Your task to perform on an android device: What's the weather going to be tomorrow? Image 0: 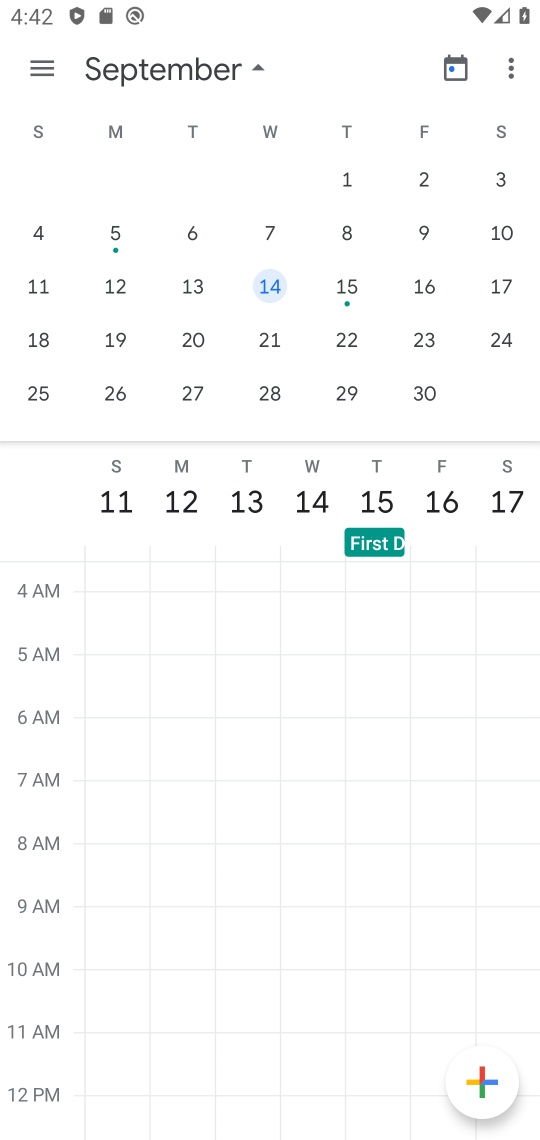
Step 0: press home button
Your task to perform on an android device: What's the weather going to be tomorrow? Image 1: 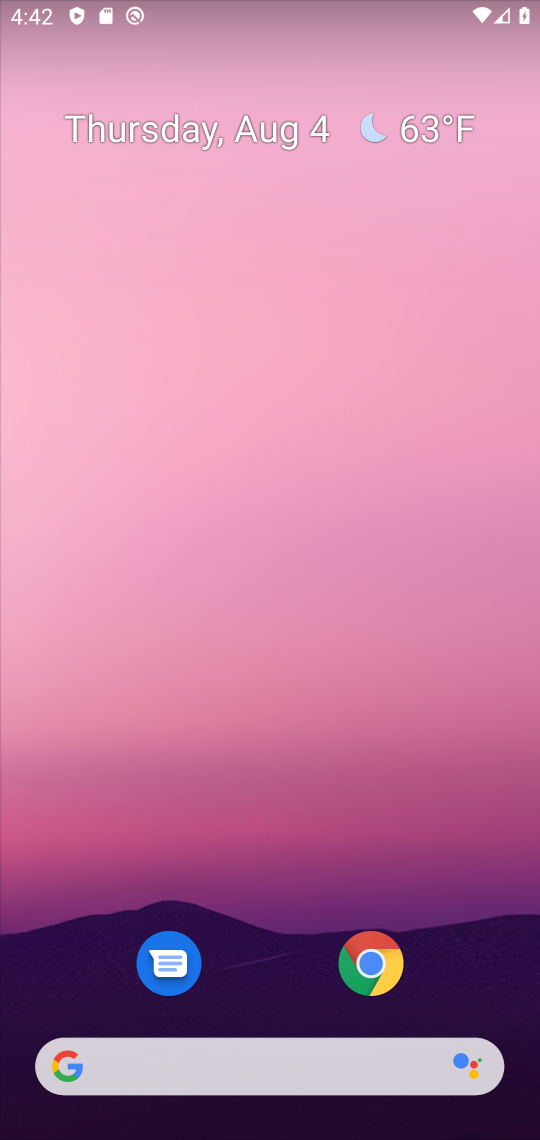
Step 1: click (250, 1061)
Your task to perform on an android device: What's the weather going to be tomorrow? Image 2: 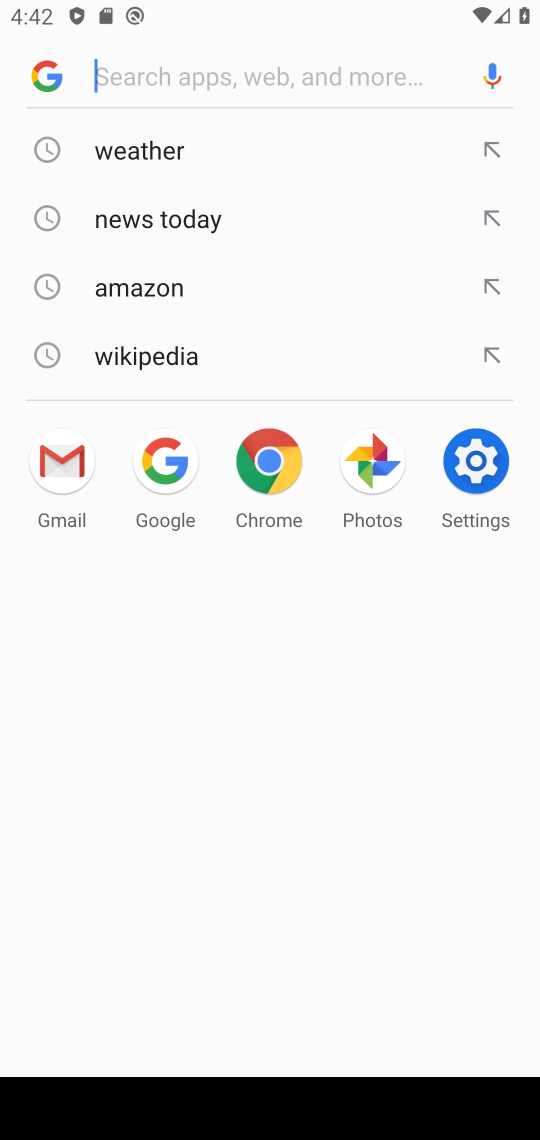
Step 2: click (146, 141)
Your task to perform on an android device: What's the weather going to be tomorrow? Image 3: 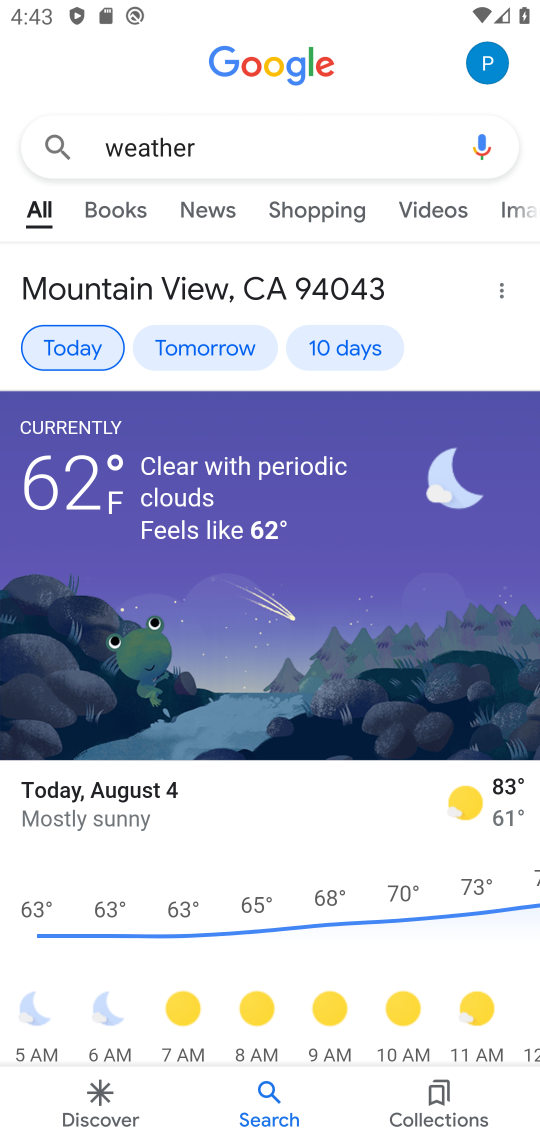
Step 3: click (173, 335)
Your task to perform on an android device: What's the weather going to be tomorrow? Image 4: 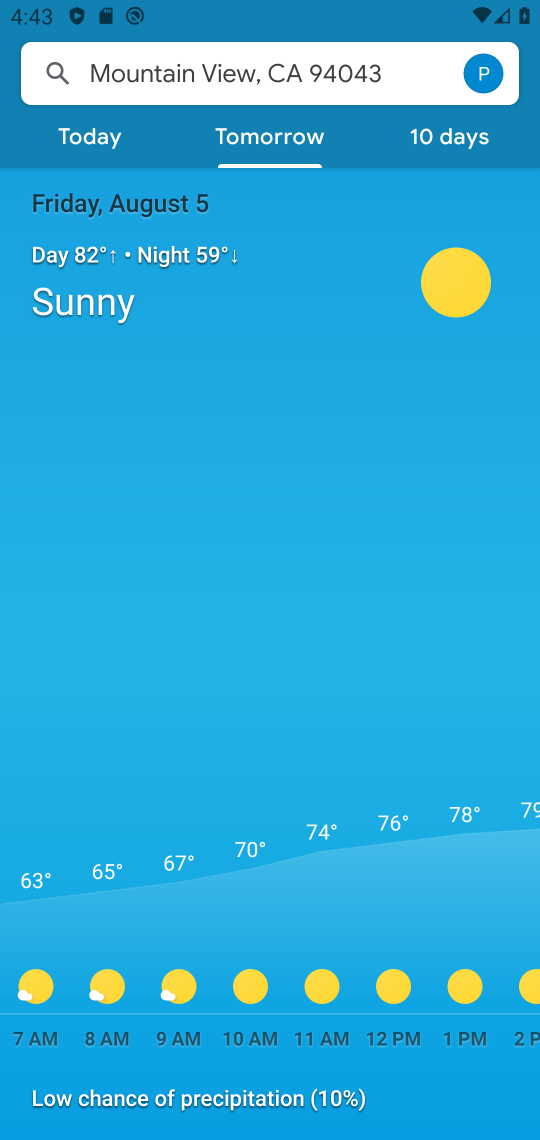
Step 4: task complete